Your task to perform on an android device: find snoozed emails in the gmail app Image 0: 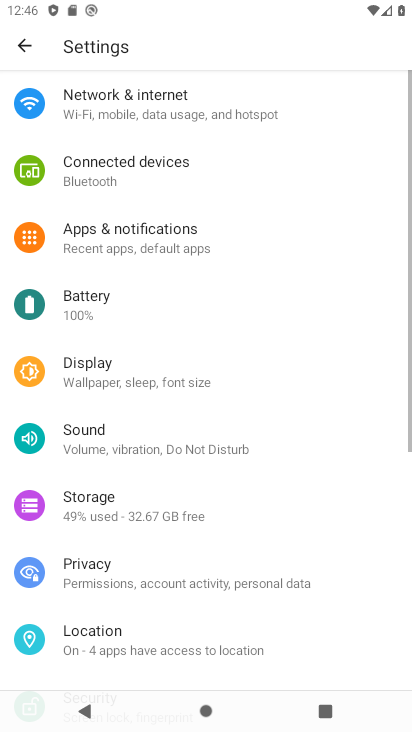
Step 0: press home button
Your task to perform on an android device: find snoozed emails in the gmail app Image 1: 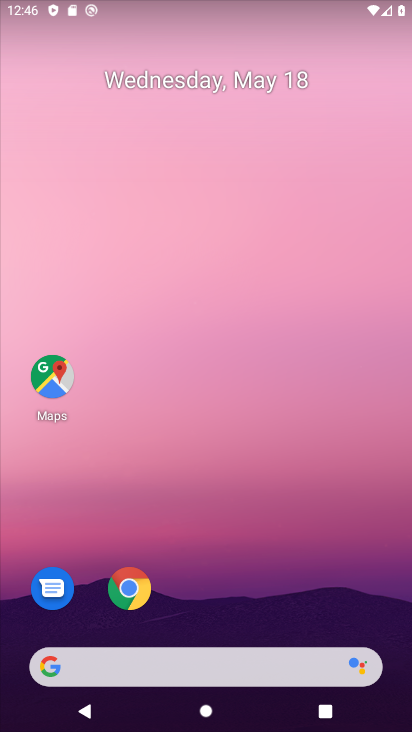
Step 1: drag from (365, 604) to (349, 117)
Your task to perform on an android device: find snoozed emails in the gmail app Image 2: 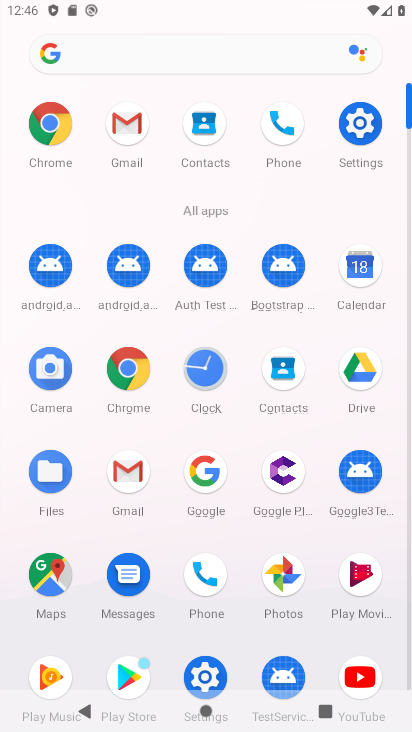
Step 2: click (130, 483)
Your task to perform on an android device: find snoozed emails in the gmail app Image 3: 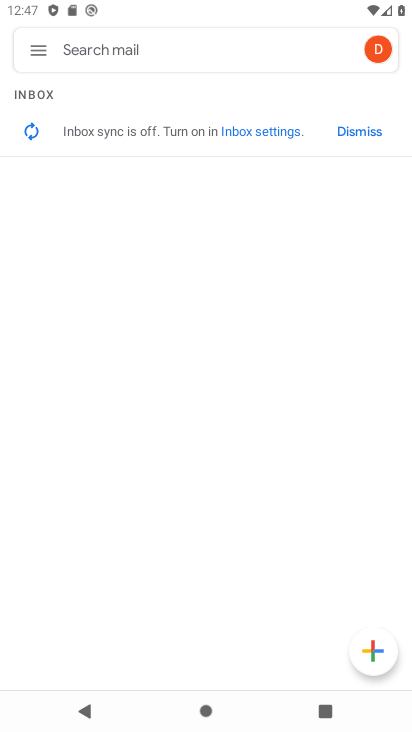
Step 3: click (40, 54)
Your task to perform on an android device: find snoozed emails in the gmail app Image 4: 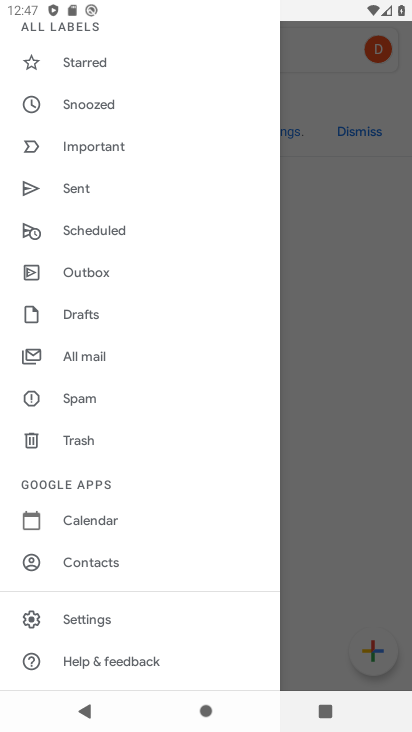
Step 4: drag from (184, 572) to (184, 387)
Your task to perform on an android device: find snoozed emails in the gmail app Image 5: 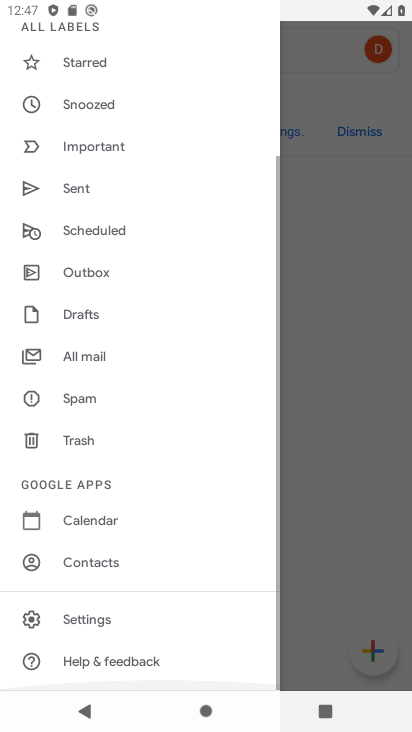
Step 5: drag from (216, 263) to (220, 406)
Your task to perform on an android device: find snoozed emails in the gmail app Image 6: 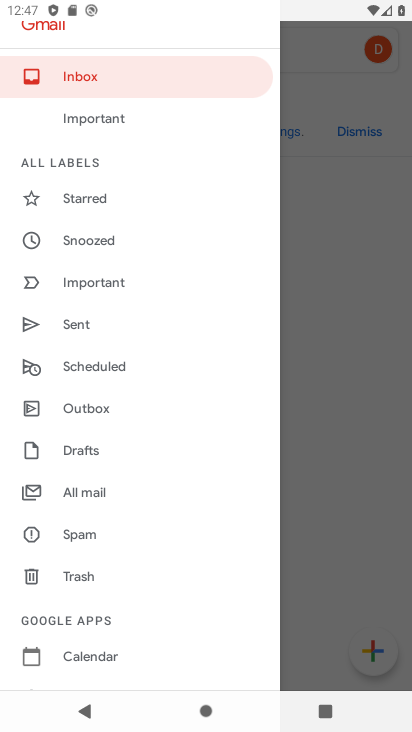
Step 6: drag from (222, 233) to (219, 383)
Your task to perform on an android device: find snoozed emails in the gmail app Image 7: 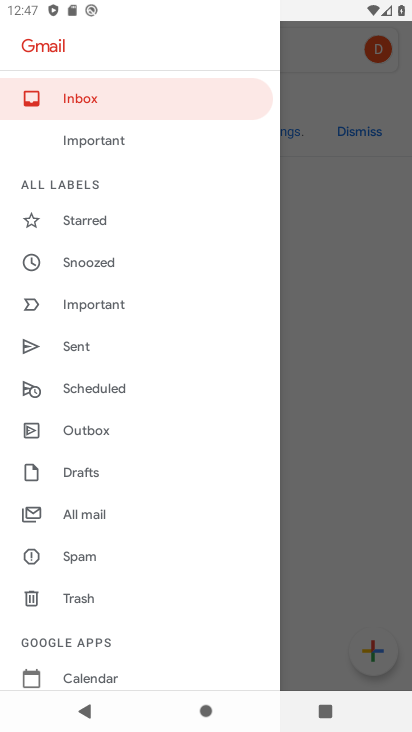
Step 7: click (96, 259)
Your task to perform on an android device: find snoozed emails in the gmail app Image 8: 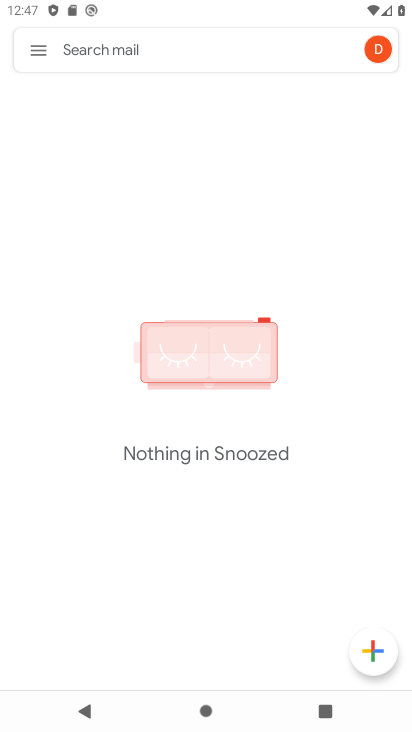
Step 8: task complete